Your task to perform on an android device: Go to Reddit.com Image 0: 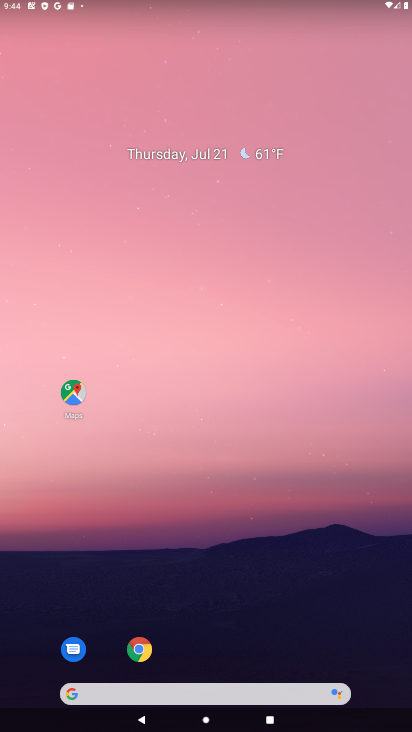
Step 0: click (140, 651)
Your task to perform on an android device: Go to Reddit.com Image 1: 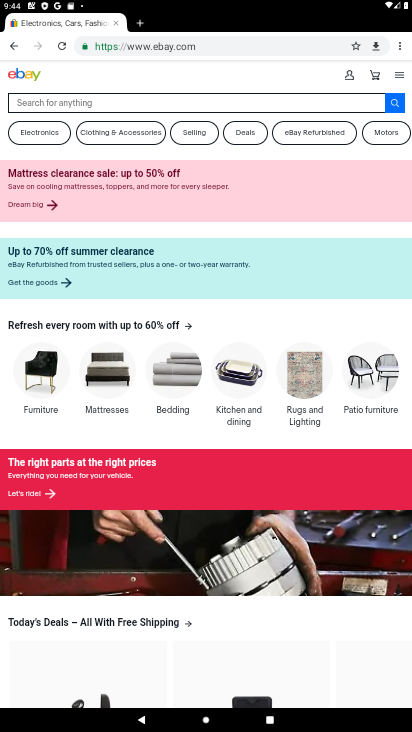
Step 1: click (239, 47)
Your task to perform on an android device: Go to Reddit.com Image 2: 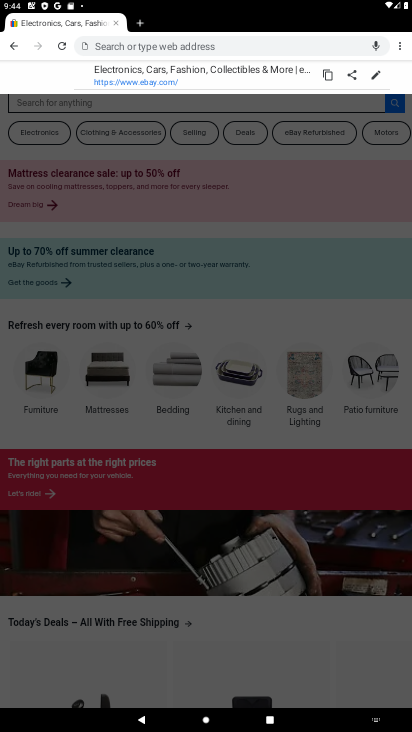
Step 2: type "Reddit.com"
Your task to perform on an android device: Go to Reddit.com Image 3: 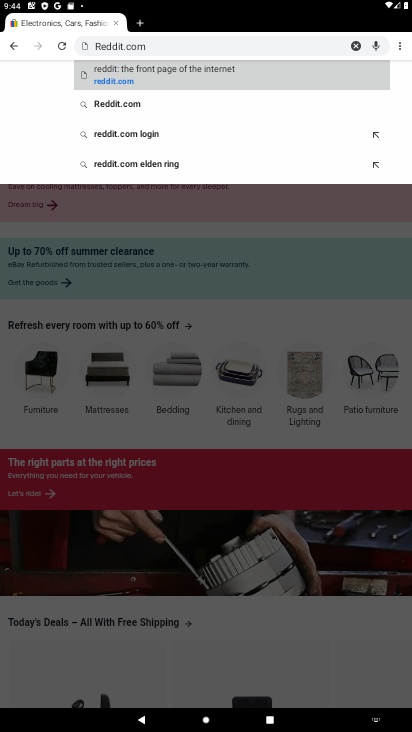
Step 3: click (134, 106)
Your task to perform on an android device: Go to Reddit.com Image 4: 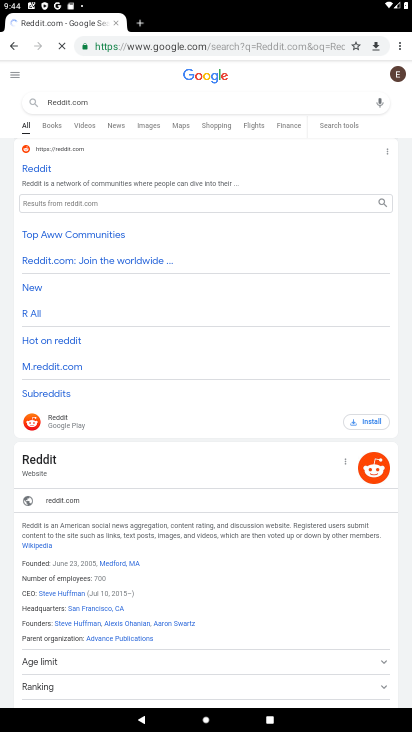
Step 4: click (47, 174)
Your task to perform on an android device: Go to Reddit.com Image 5: 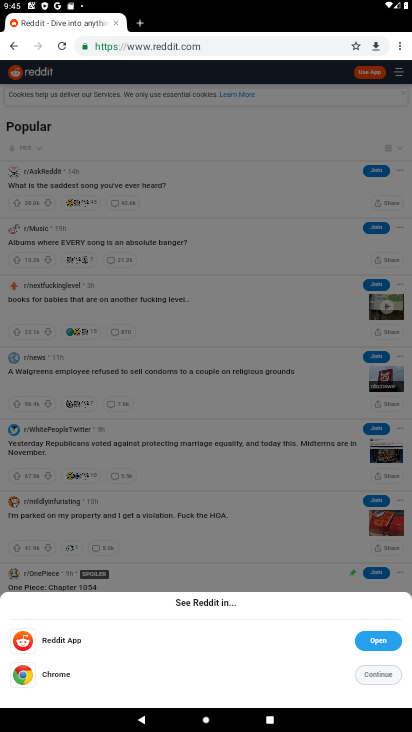
Step 5: click (377, 675)
Your task to perform on an android device: Go to Reddit.com Image 6: 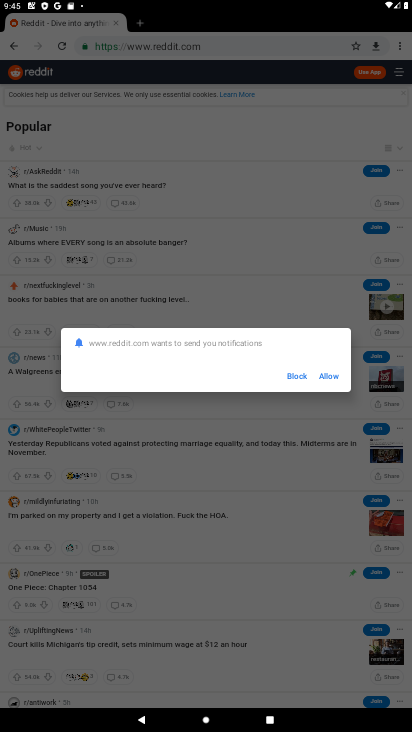
Step 6: click (330, 375)
Your task to perform on an android device: Go to Reddit.com Image 7: 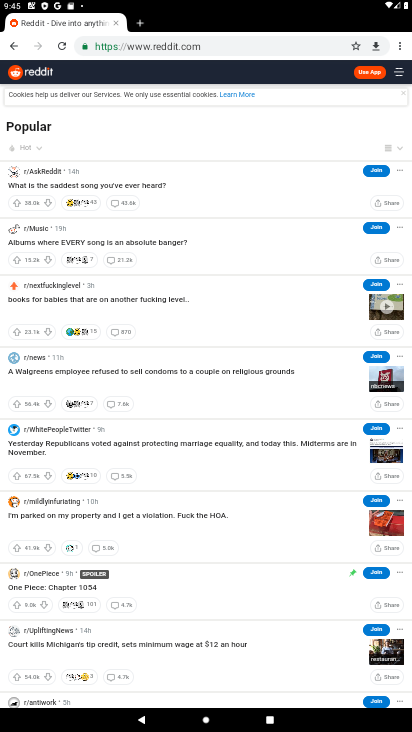
Step 7: task complete